Your task to perform on an android device: stop showing notifications on the lock screen Image 0: 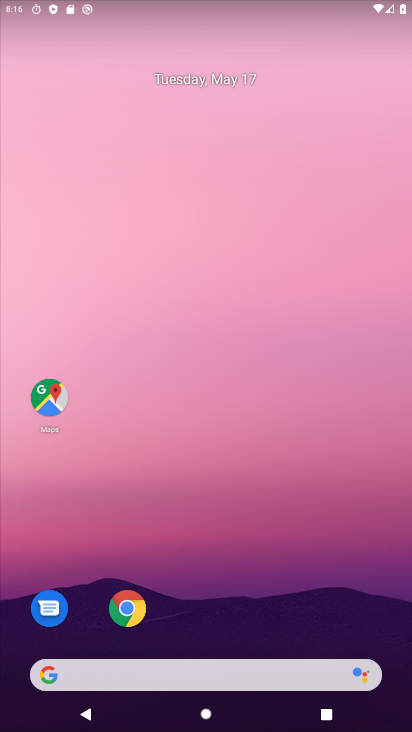
Step 0: drag from (339, 590) to (347, 163)
Your task to perform on an android device: stop showing notifications on the lock screen Image 1: 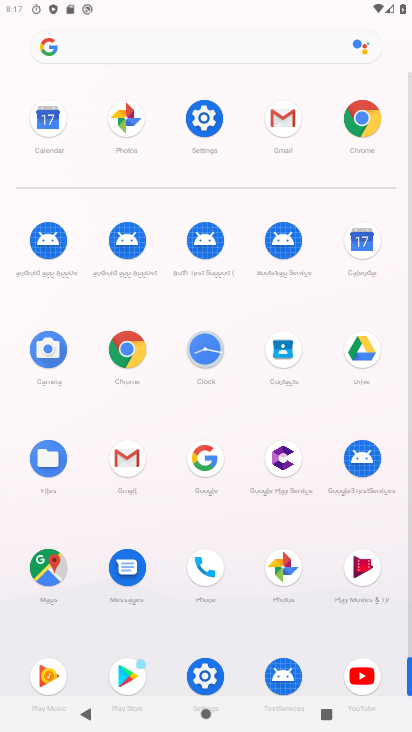
Step 1: click (204, 125)
Your task to perform on an android device: stop showing notifications on the lock screen Image 2: 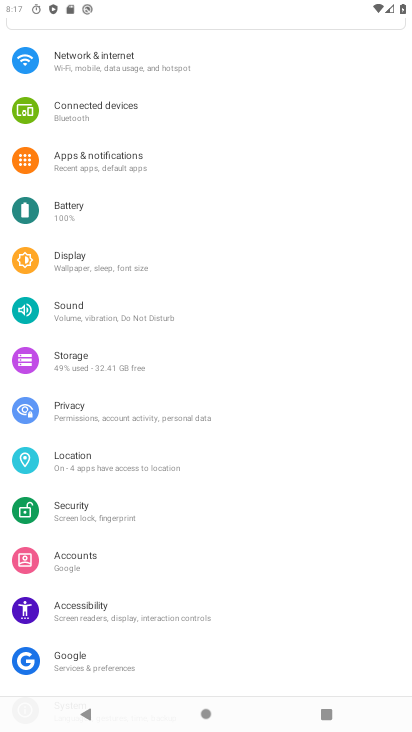
Step 2: click (95, 175)
Your task to perform on an android device: stop showing notifications on the lock screen Image 3: 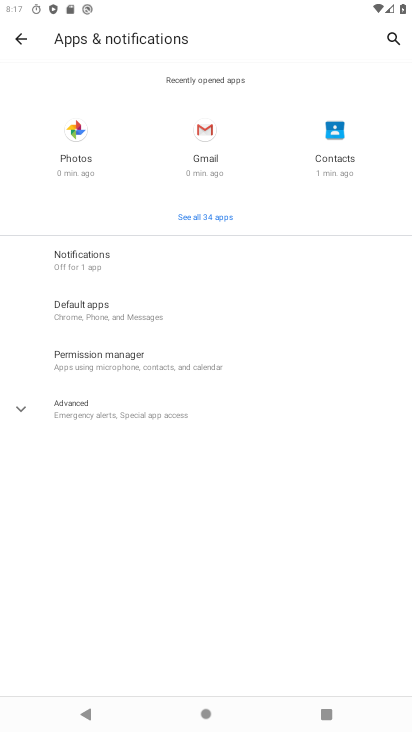
Step 3: click (83, 255)
Your task to perform on an android device: stop showing notifications on the lock screen Image 4: 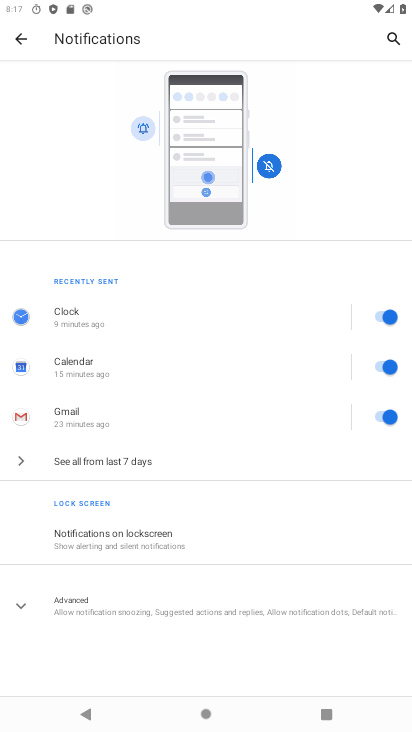
Step 4: click (127, 540)
Your task to perform on an android device: stop showing notifications on the lock screen Image 5: 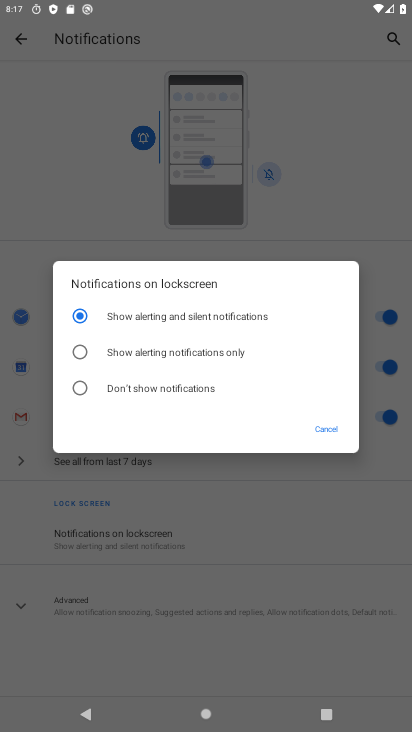
Step 5: click (75, 386)
Your task to perform on an android device: stop showing notifications on the lock screen Image 6: 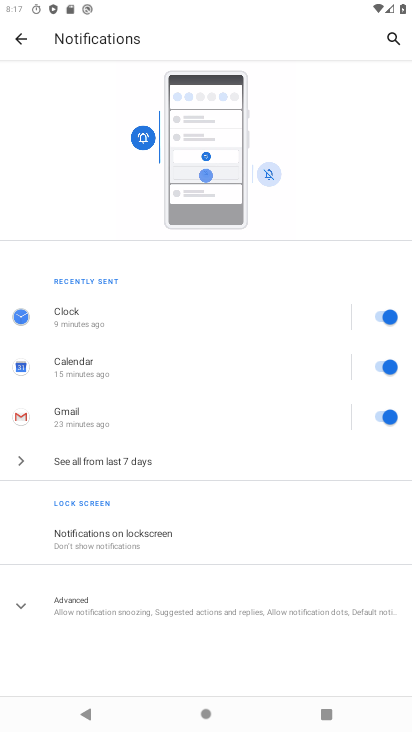
Step 6: task complete